Your task to perform on an android device: Open wifi settings Image 0: 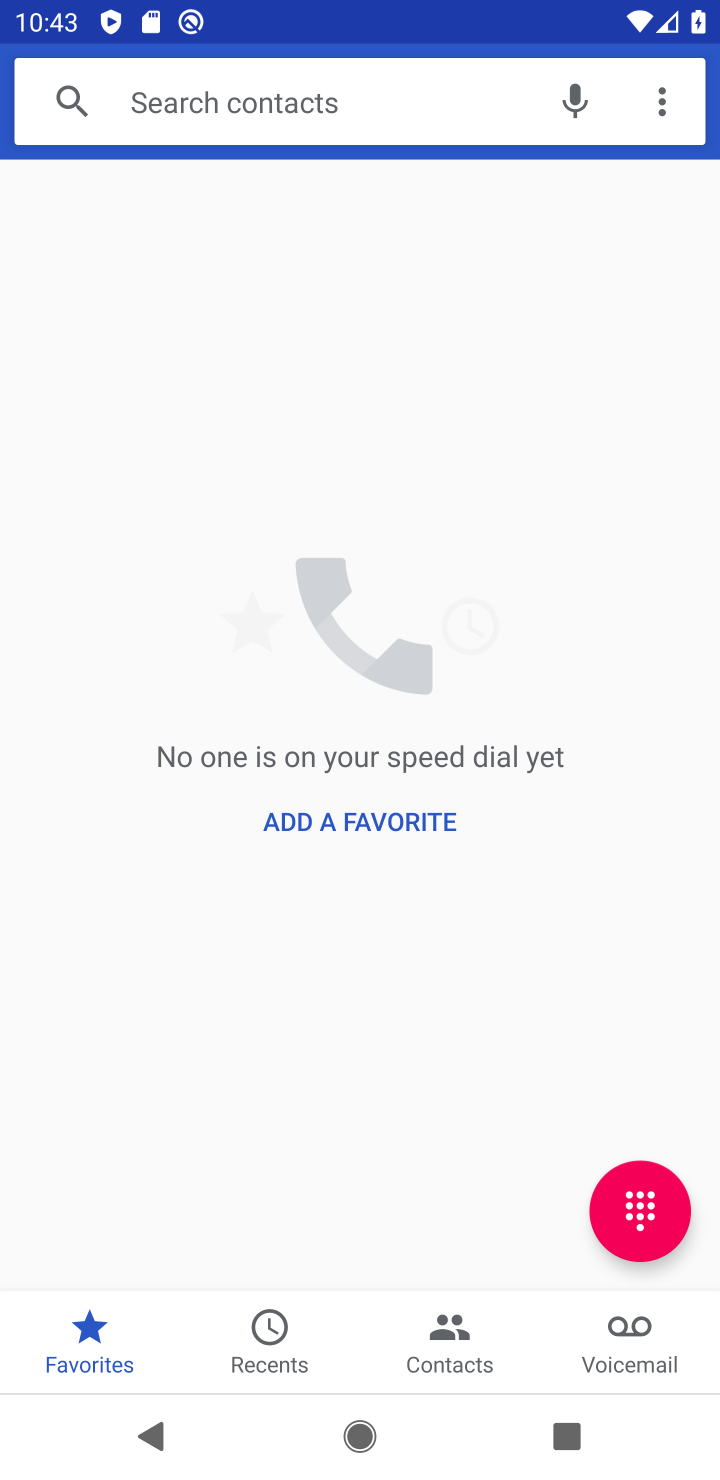
Step 0: task complete